Your task to perform on an android device: When is my next meeting? Image 0: 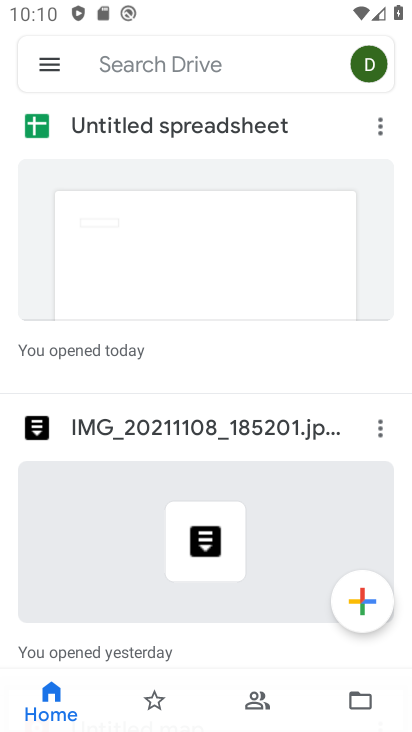
Step 0: press back button
Your task to perform on an android device: When is my next meeting? Image 1: 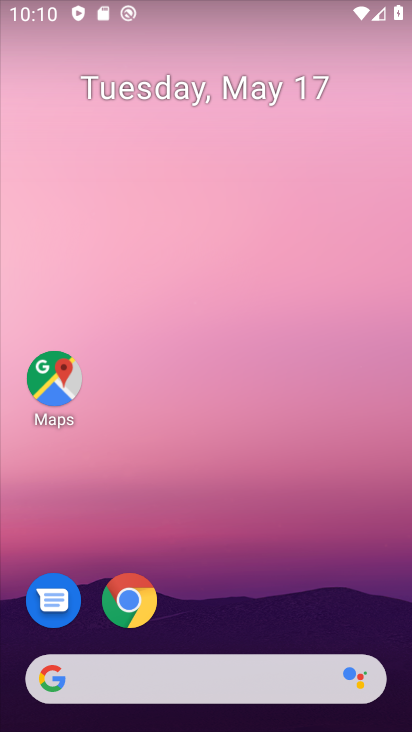
Step 1: drag from (244, 529) to (305, 50)
Your task to perform on an android device: When is my next meeting? Image 2: 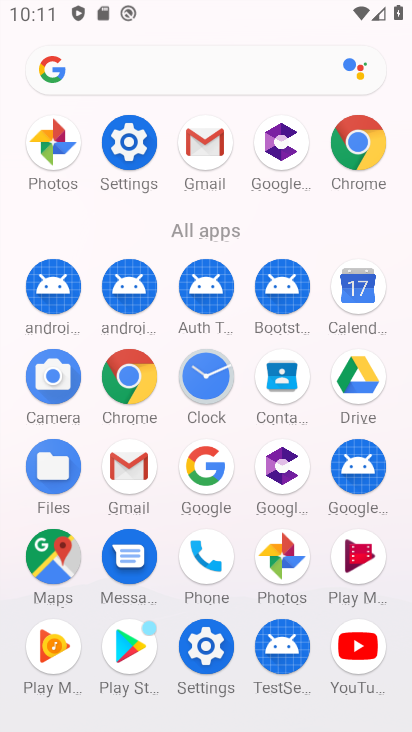
Step 2: click (355, 290)
Your task to perform on an android device: When is my next meeting? Image 3: 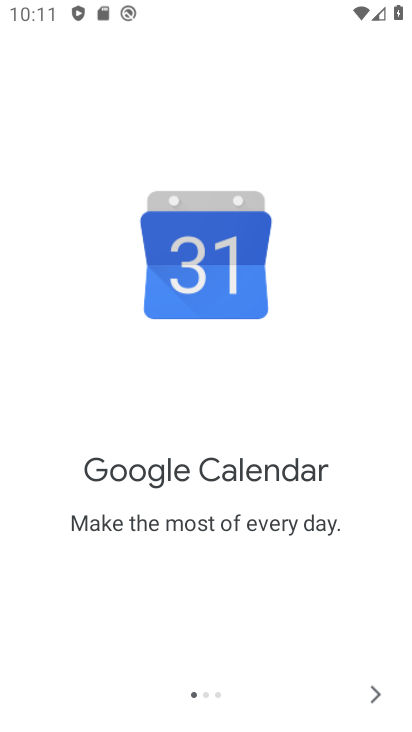
Step 3: click (361, 692)
Your task to perform on an android device: When is my next meeting? Image 4: 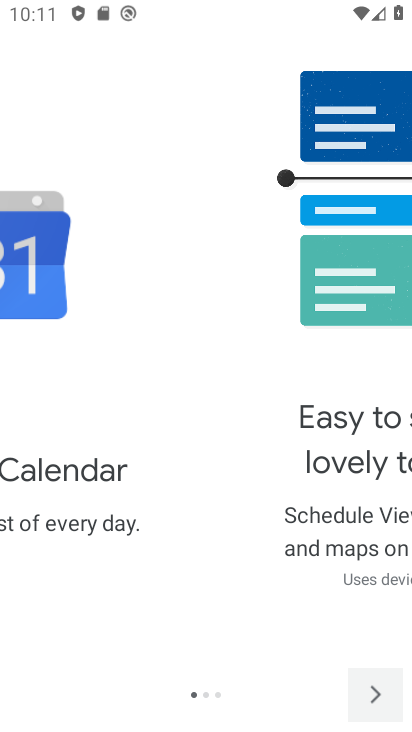
Step 4: click (361, 692)
Your task to perform on an android device: When is my next meeting? Image 5: 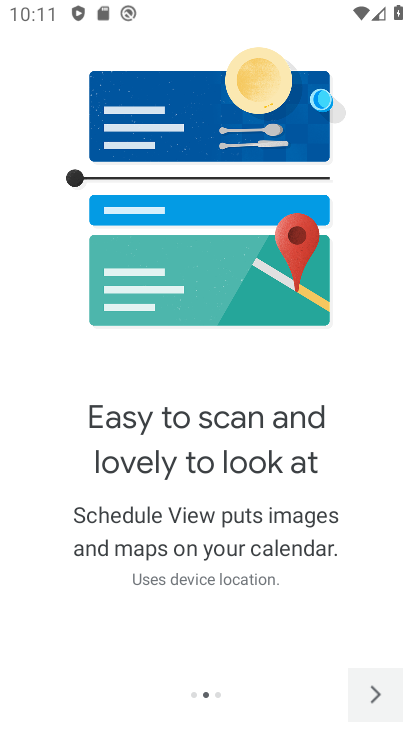
Step 5: click (364, 691)
Your task to perform on an android device: When is my next meeting? Image 6: 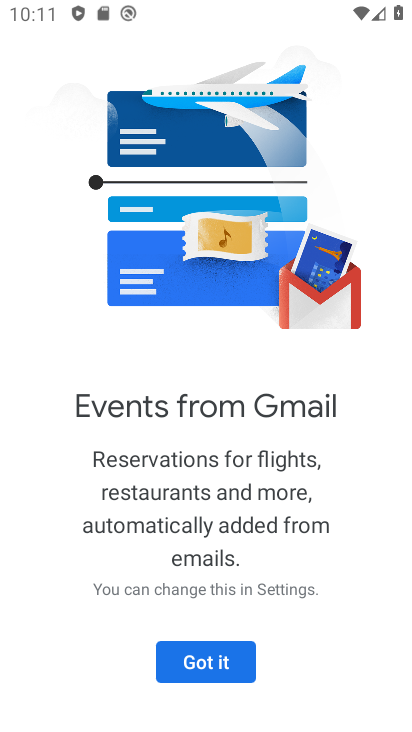
Step 6: click (211, 660)
Your task to perform on an android device: When is my next meeting? Image 7: 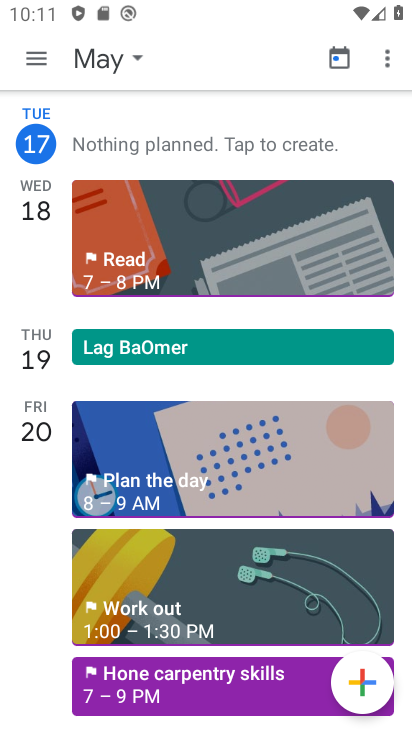
Step 7: task complete